Your task to perform on an android device: Open Wikipedia Image 0: 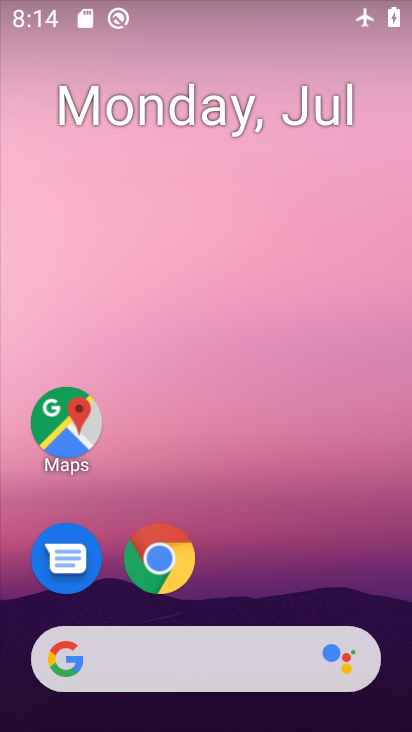
Step 0: drag from (368, 577) to (407, 135)
Your task to perform on an android device: Open Wikipedia Image 1: 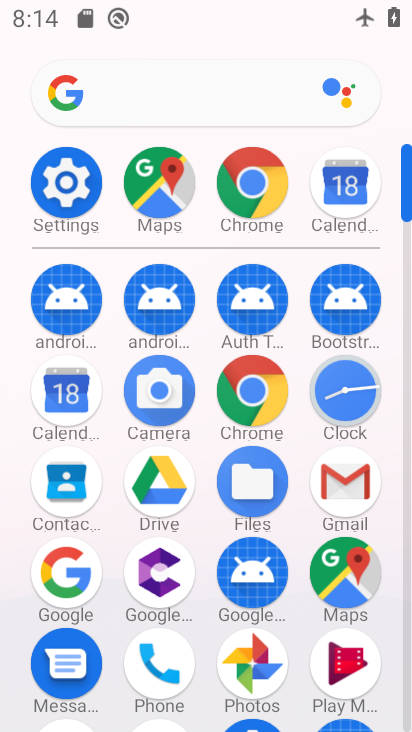
Step 1: click (266, 384)
Your task to perform on an android device: Open Wikipedia Image 2: 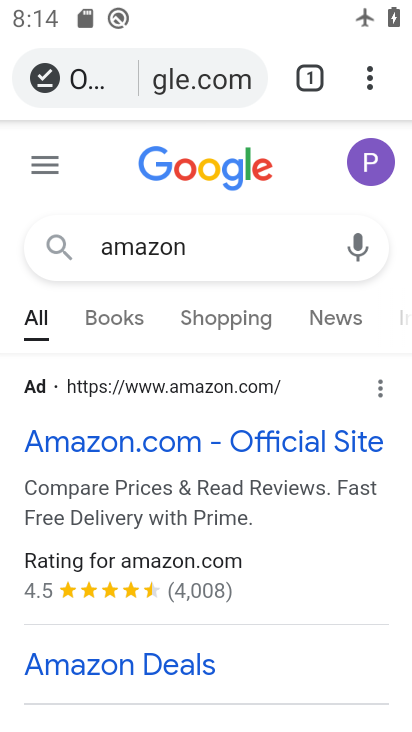
Step 2: click (223, 73)
Your task to perform on an android device: Open Wikipedia Image 3: 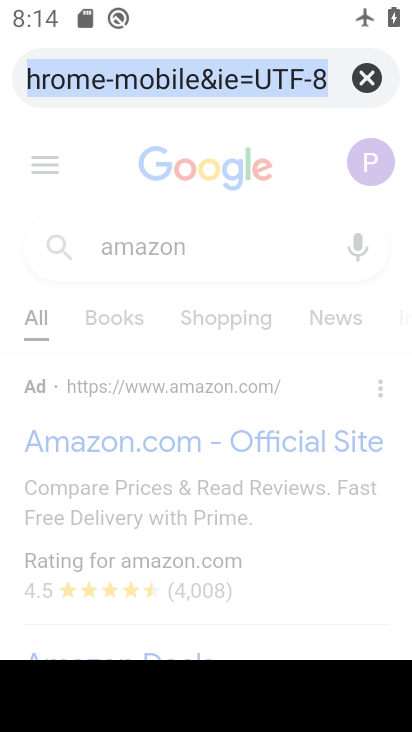
Step 3: type "wikipedia"
Your task to perform on an android device: Open Wikipedia Image 4: 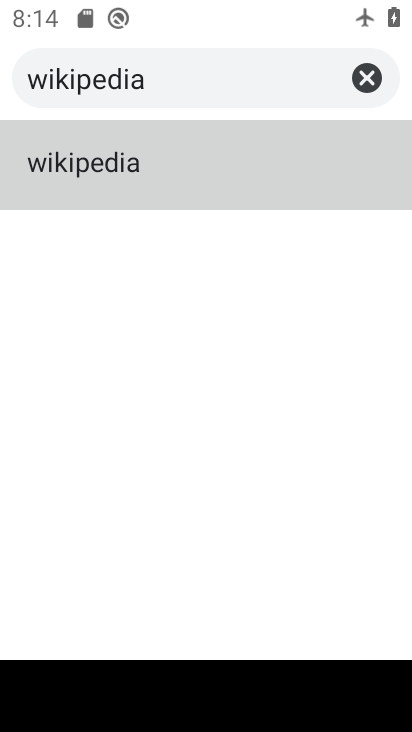
Step 4: click (131, 159)
Your task to perform on an android device: Open Wikipedia Image 5: 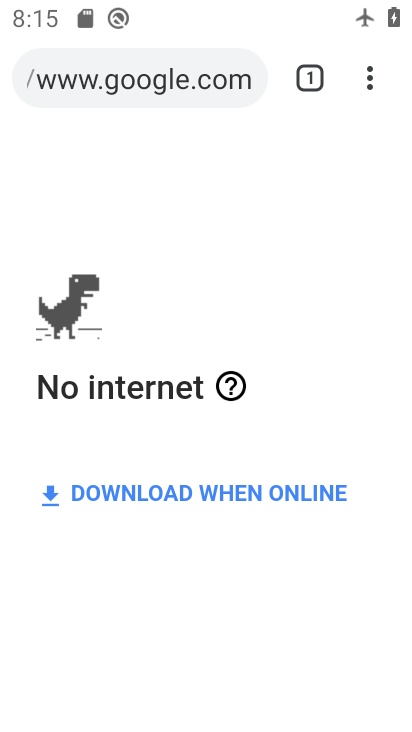
Step 5: task complete